Your task to perform on an android device: open the mobile data screen to see how much data has been used Image 0: 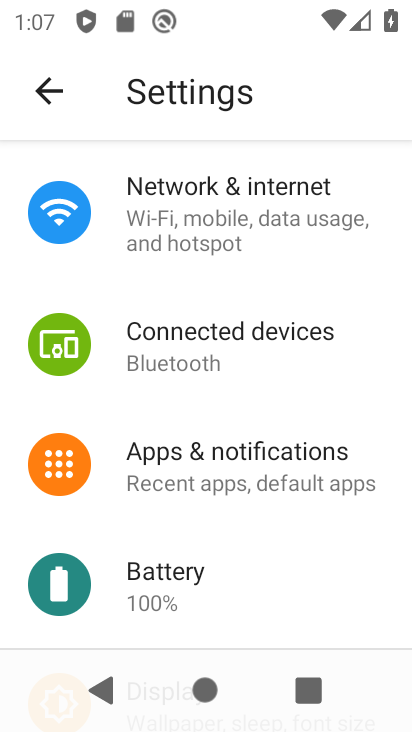
Step 0: click (274, 222)
Your task to perform on an android device: open the mobile data screen to see how much data has been used Image 1: 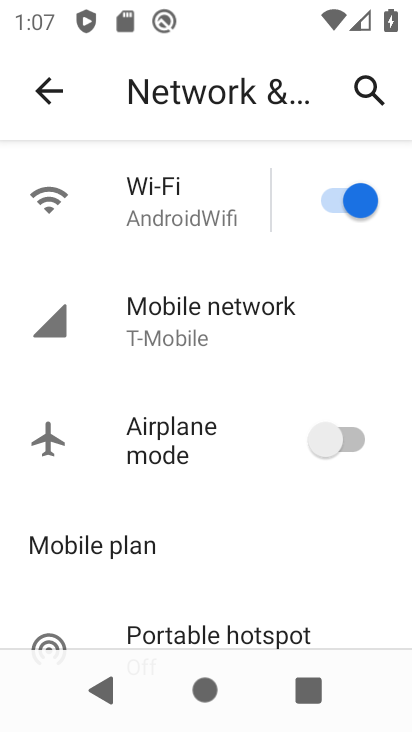
Step 1: click (182, 312)
Your task to perform on an android device: open the mobile data screen to see how much data has been used Image 2: 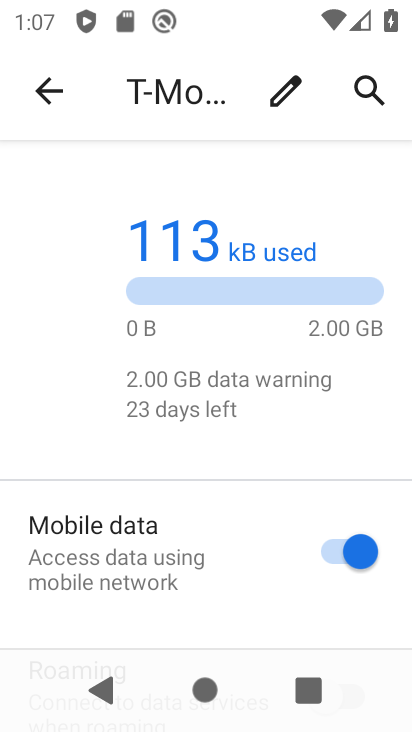
Step 2: task complete